Your task to perform on an android device: Open CNN.com Image 0: 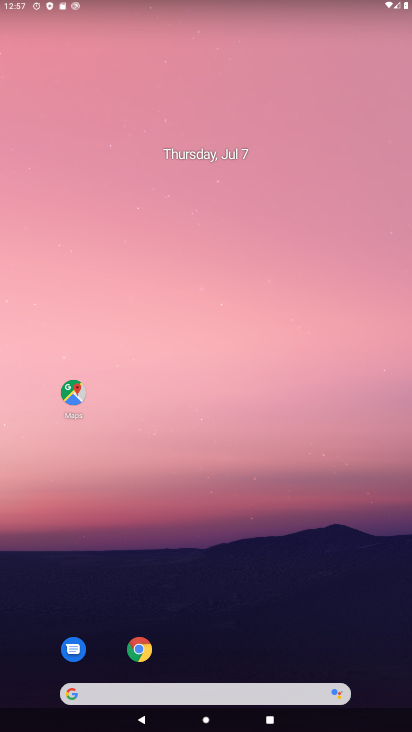
Step 0: drag from (205, 670) to (178, 265)
Your task to perform on an android device: Open CNN.com Image 1: 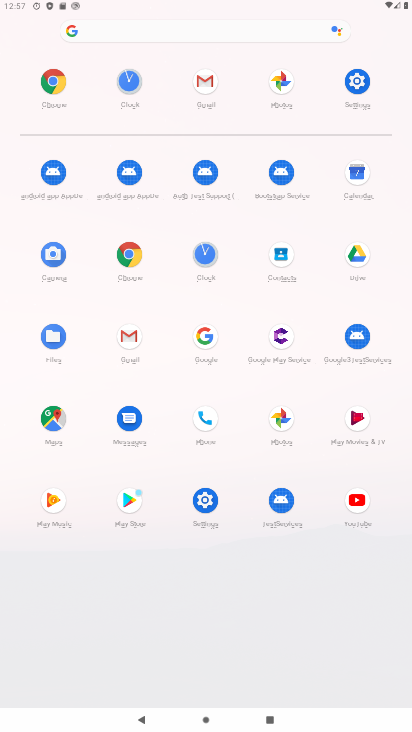
Step 1: click (124, 261)
Your task to perform on an android device: Open CNN.com Image 2: 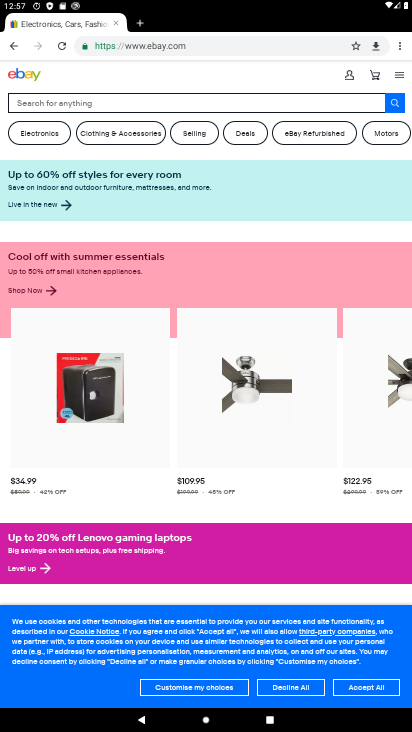
Step 2: click (131, 17)
Your task to perform on an android device: Open CNN.com Image 3: 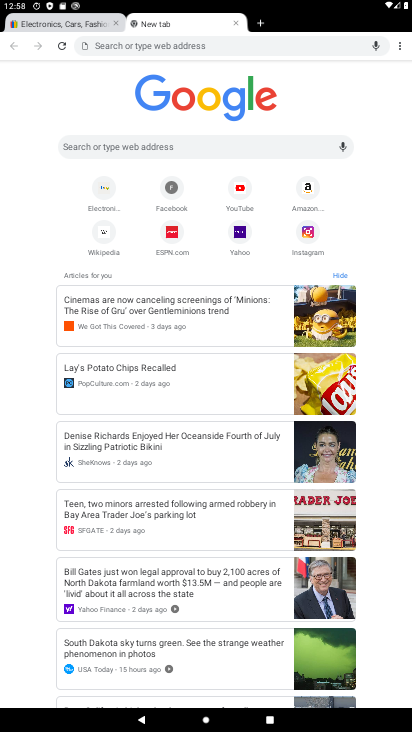
Step 3: click (222, 141)
Your task to perform on an android device: Open CNN.com Image 4: 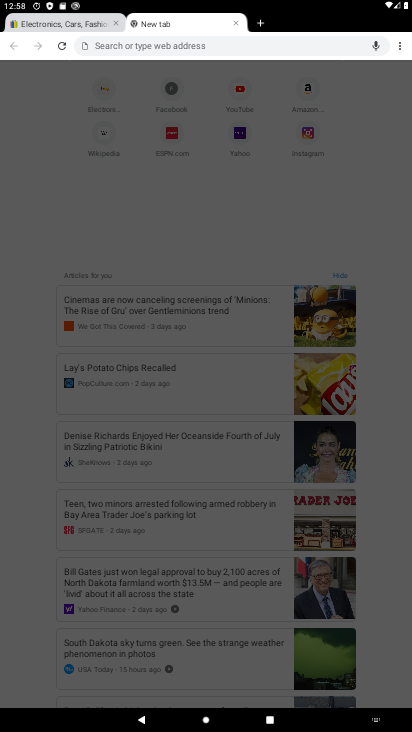
Step 4: type "cnn"
Your task to perform on an android device: Open CNN.com Image 5: 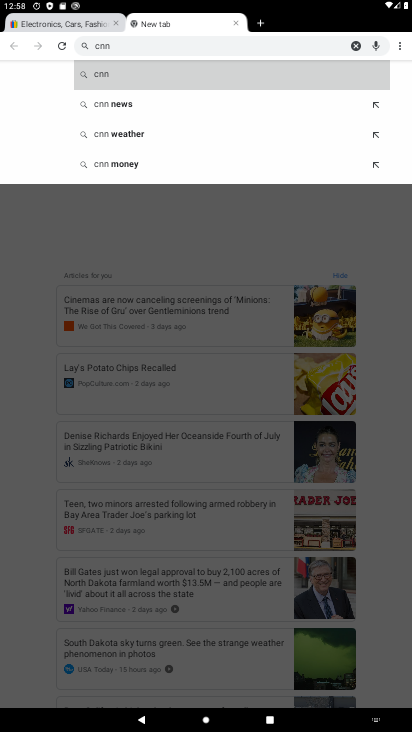
Step 5: click (207, 72)
Your task to perform on an android device: Open CNN.com Image 6: 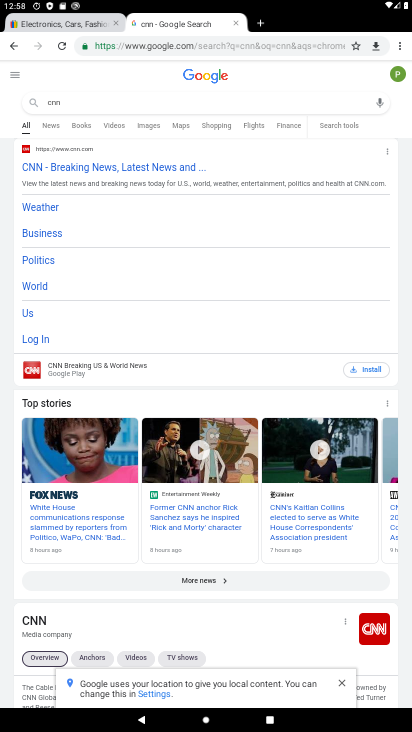
Step 6: drag from (72, 522) to (50, 333)
Your task to perform on an android device: Open CNN.com Image 7: 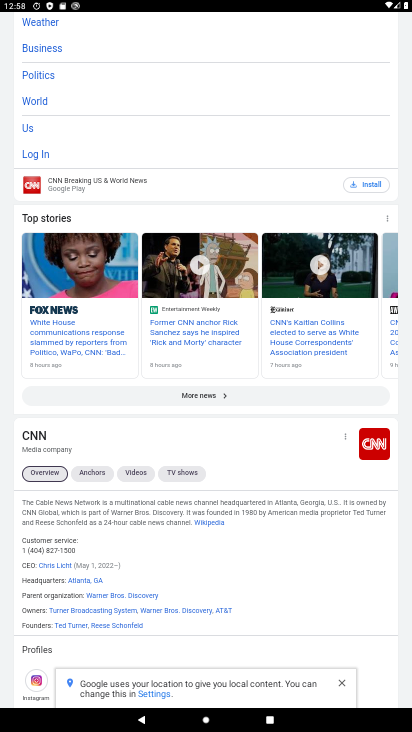
Step 7: click (41, 431)
Your task to perform on an android device: Open CNN.com Image 8: 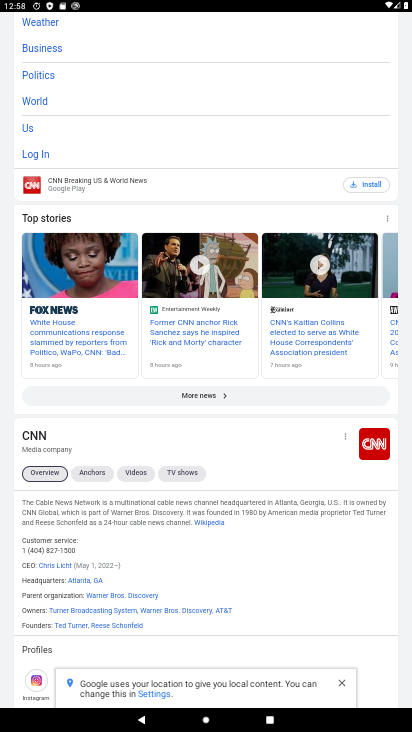
Step 8: task complete